Your task to perform on an android device: turn off notifications in google photos Image 0: 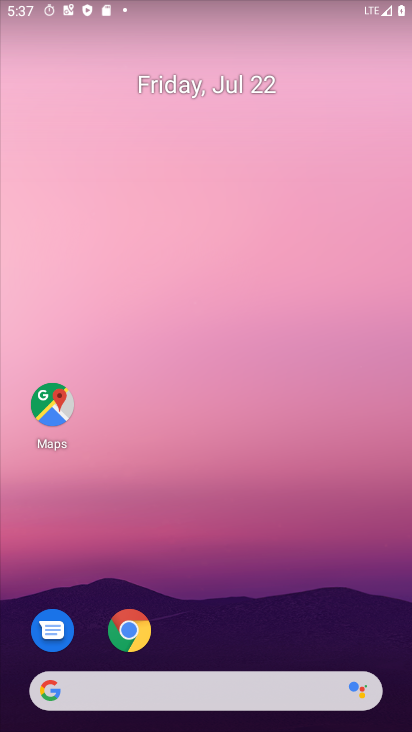
Step 0: drag from (158, 631) to (226, 43)
Your task to perform on an android device: turn off notifications in google photos Image 1: 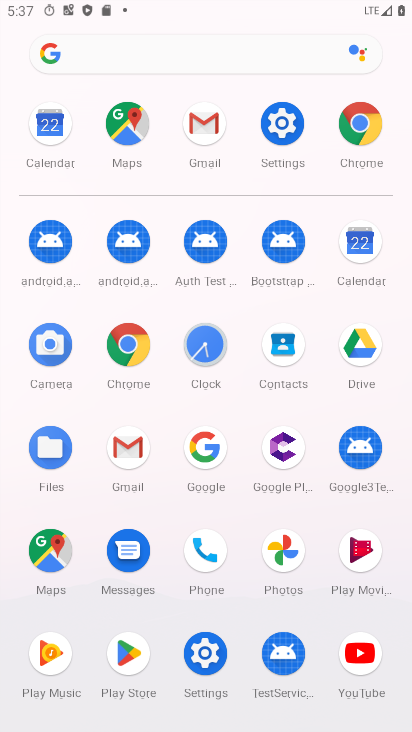
Step 1: click (284, 550)
Your task to perform on an android device: turn off notifications in google photos Image 2: 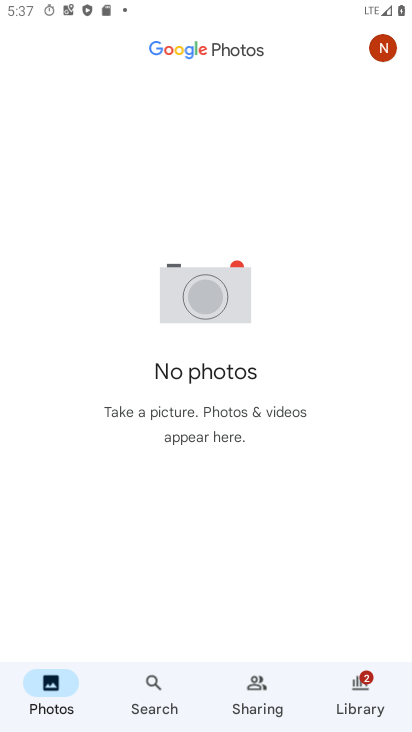
Step 2: click (379, 46)
Your task to perform on an android device: turn off notifications in google photos Image 3: 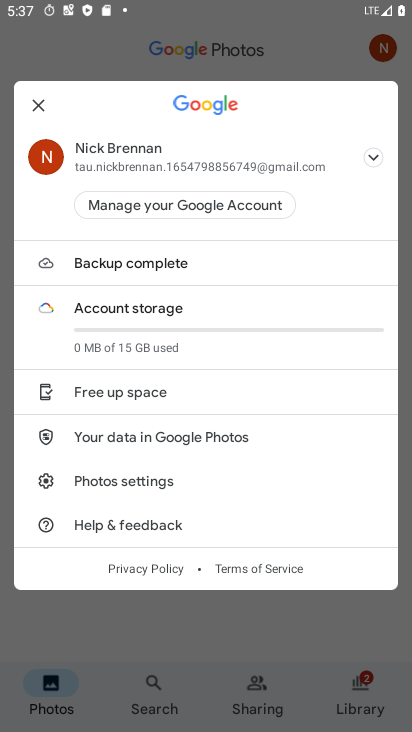
Step 3: click (159, 485)
Your task to perform on an android device: turn off notifications in google photos Image 4: 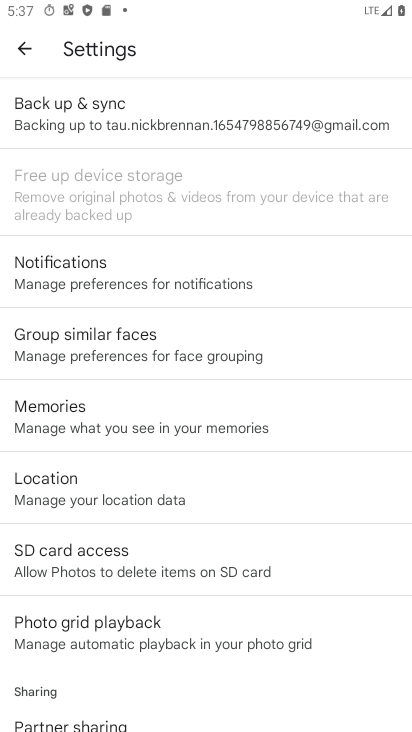
Step 4: click (97, 270)
Your task to perform on an android device: turn off notifications in google photos Image 5: 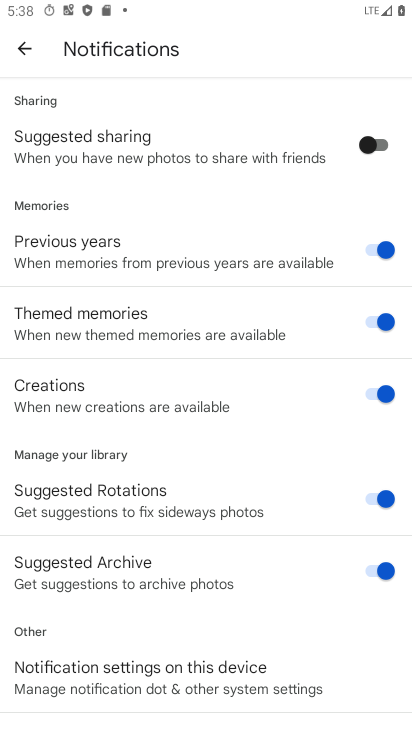
Step 5: click (215, 689)
Your task to perform on an android device: turn off notifications in google photos Image 6: 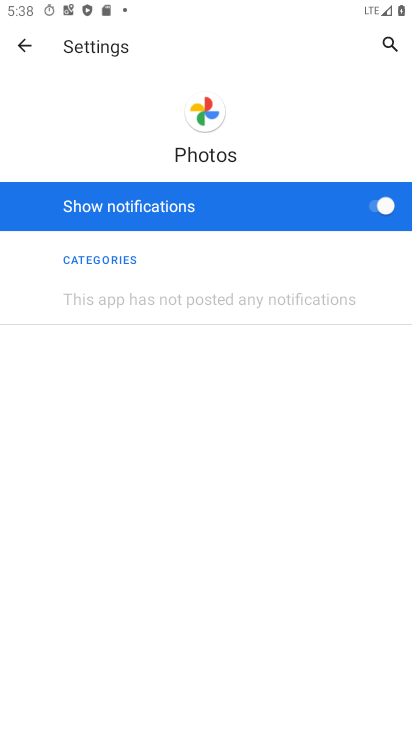
Step 6: click (374, 209)
Your task to perform on an android device: turn off notifications in google photos Image 7: 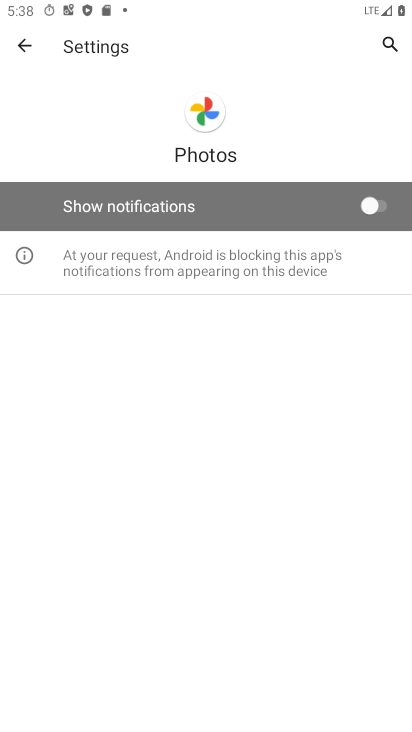
Step 7: task complete